Your task to perform on an android device: change the clock display to analog Image 0: 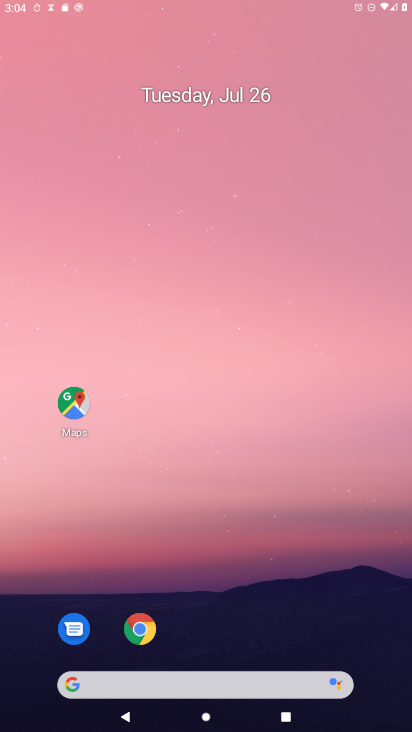
Step 0: drag from (236, 211) to (286, 42)
Your task to perform on an android device: change the clock display to analog Image 1: 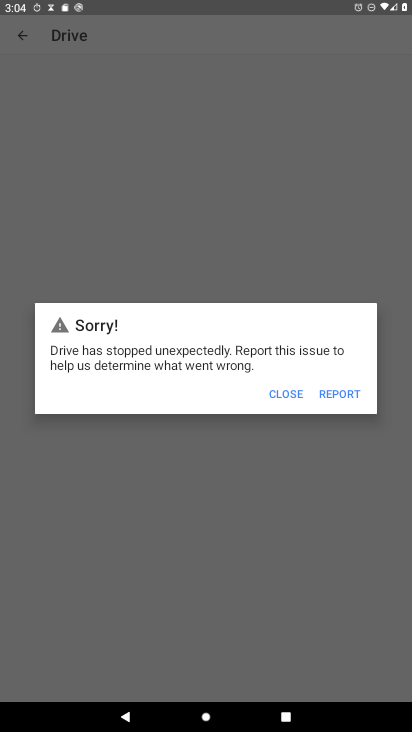
Step 1: press home button
Your task to perform on an android device: change the clock display to analog Image 2: 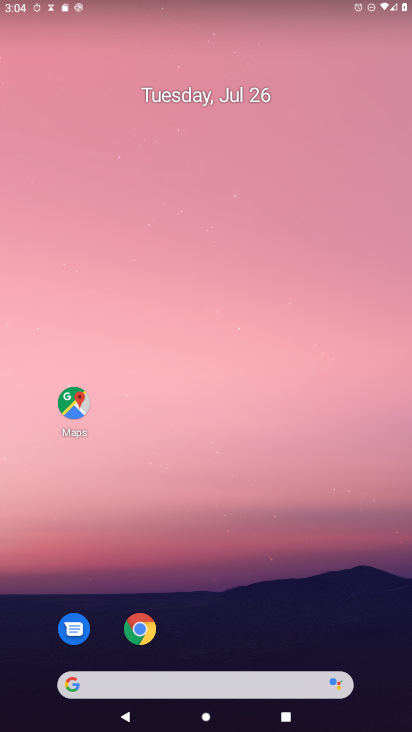
Step 2: drag from (239, 707) to (254, 71)
Your task to perform on an android device: change the clock display to analog Image 3: 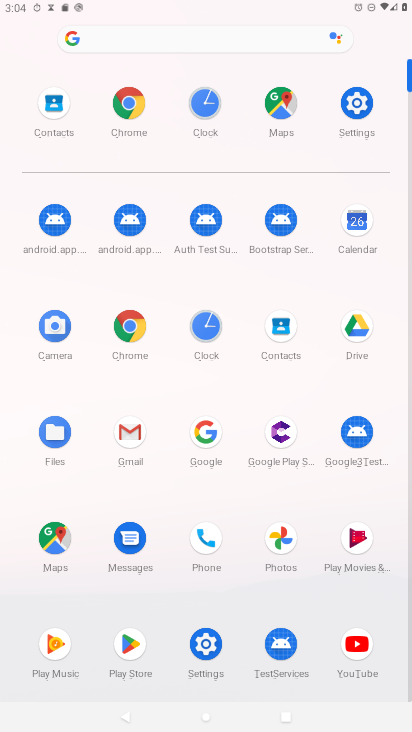
Step 3: click (212, 324)
Your task to perform on an android device: change the clock display to analog Image 4: 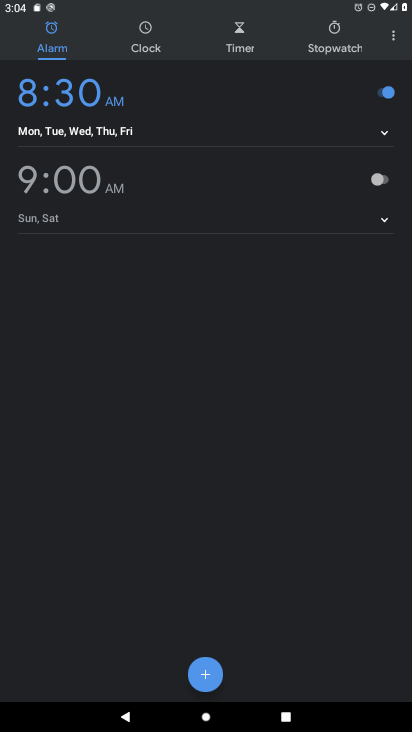
Step 4: click (386, 29)
Your task to perform on an android device: change the clock display to analog Image 5: 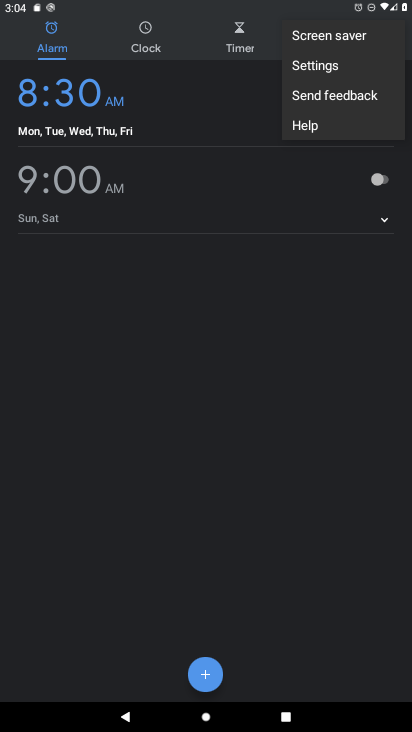
Step 5: click (342, 63)
Your task to perform on an android device: change the clock display to analog Image 6: 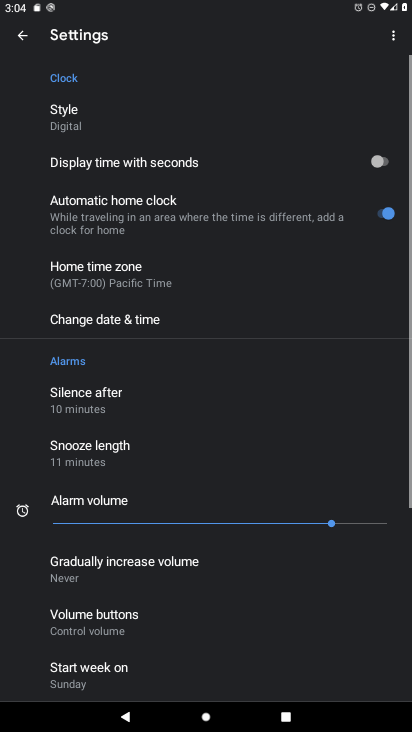
Step 6: click (92, 116)
Your task to perform on an android device: change the clock display to analog Image 7: 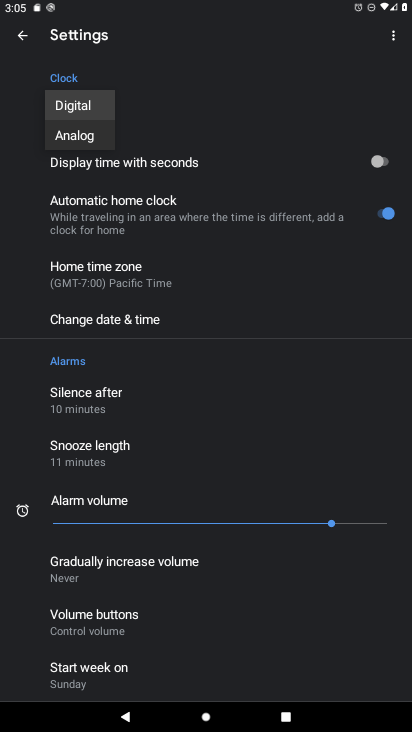
Step 7: click (97, 130)
Your task to perform on an android device: change the clock display to analog Image 8: 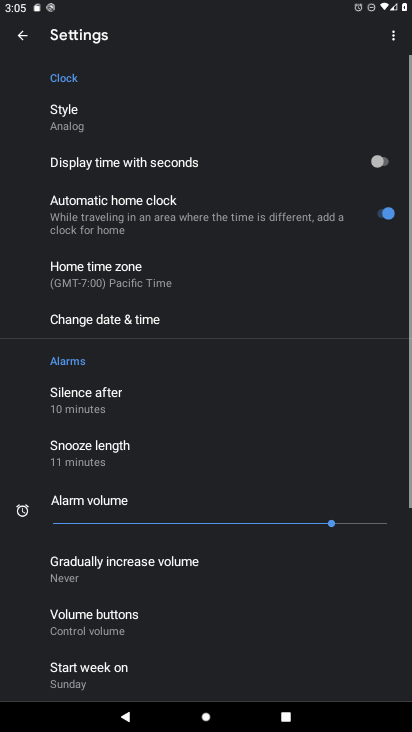
Step 8: task complete